Your task to perform on an android device: turn off notifications settings in the gmail app Image 0: 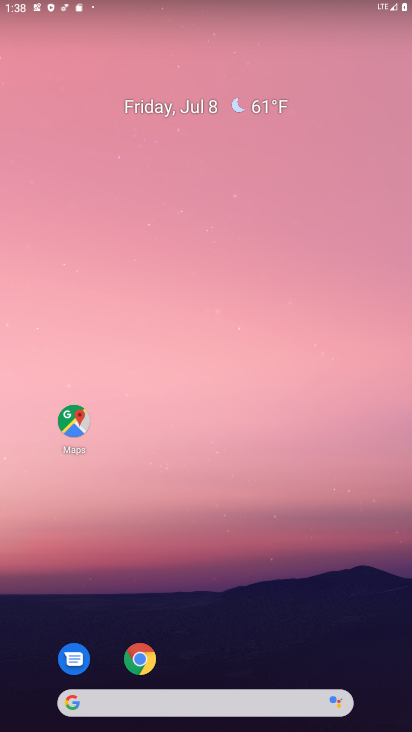
Step 0: drag from (201, 684) to (151, 144)
Your task to perform on an android device: turn off notifications settings in the gmail app Image 1: 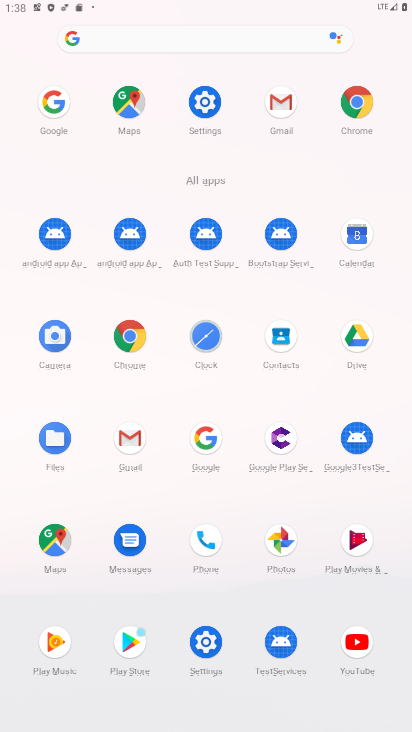
Step 1: click (134, 458)
Your task to perform on an android device: turn off notifications settings in the gmail app Image 2: 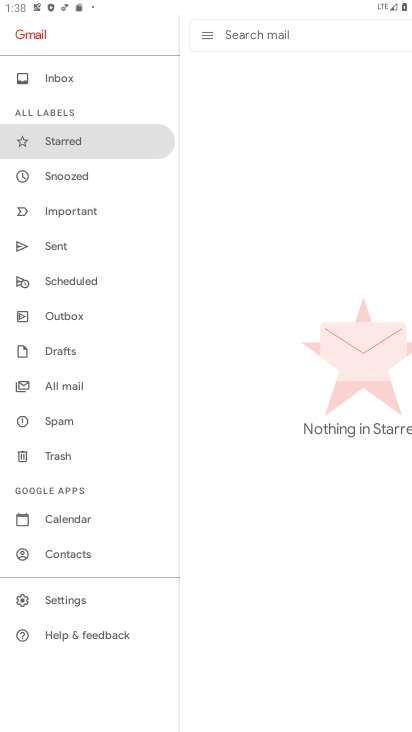
Step 2: click (59, 600)
Your task to perform on an android device: turn off notifications settings in the gmail app Image 3: 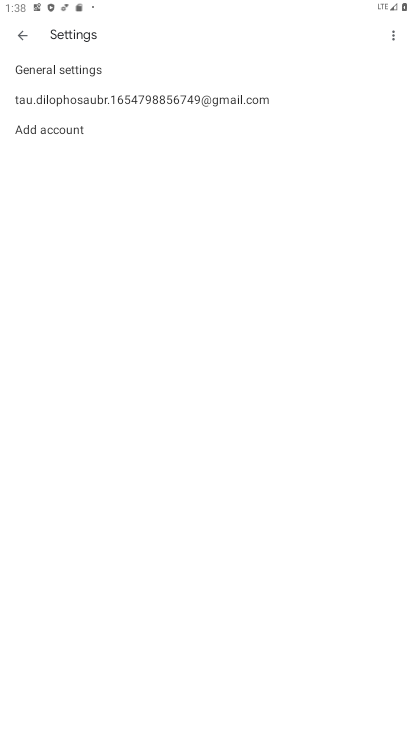
Step 3: click (65, 100)
Your task to perform on an android device: turn off notifications settings in the gmail app Image 4: 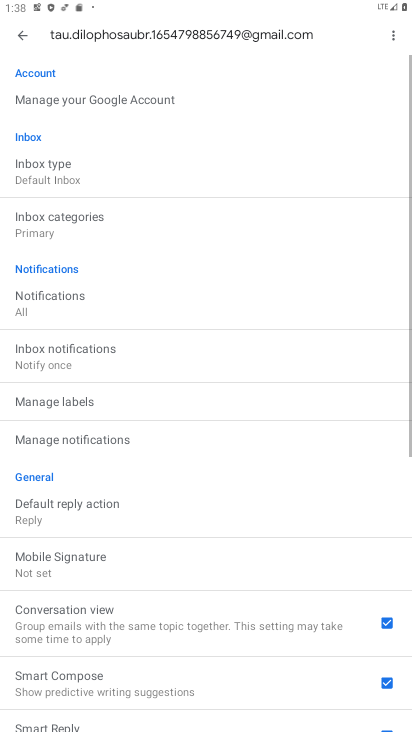
Step 4: click (21, 36)
Your task to perform on an android device: turn off notifications settings in the gmail app Image 5: 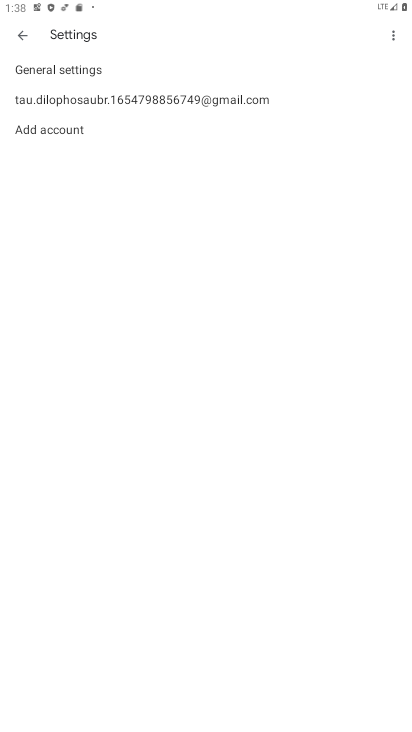
Step 5: click (39, 59)
Your task to perform on an android device: turn off notifications settings in the gmail app Image 6: 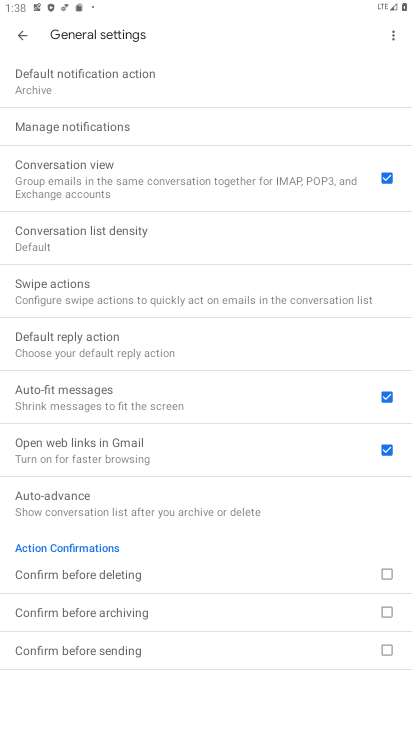
Step 6: click (70, 115)
Your task to perform on an android device: turn off notifications settings in the gmail app Image 7: 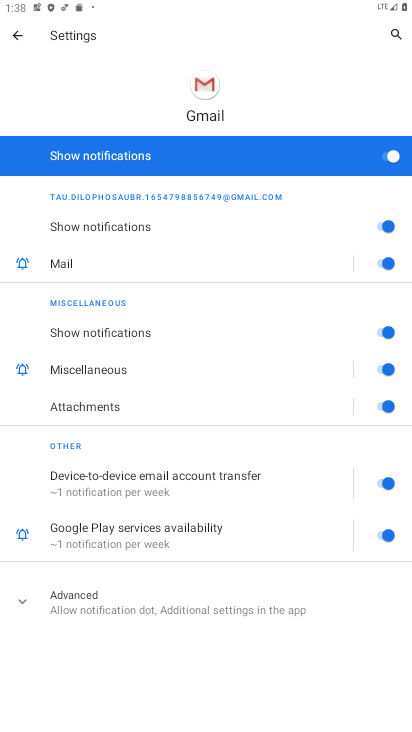
Step 7: click (391, 161)
Your task to perform on an android device: turn off notifications settings in the gmail app Image 8: 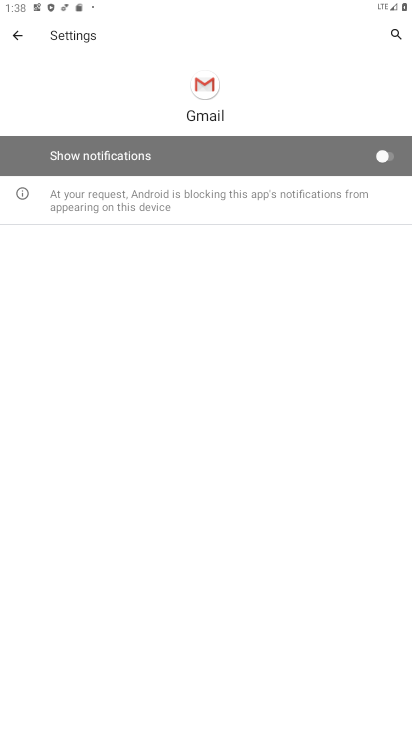
Step 8: task complete